Your task to perform on an android device: open app "Roku - Official Remote Control" Image 0: 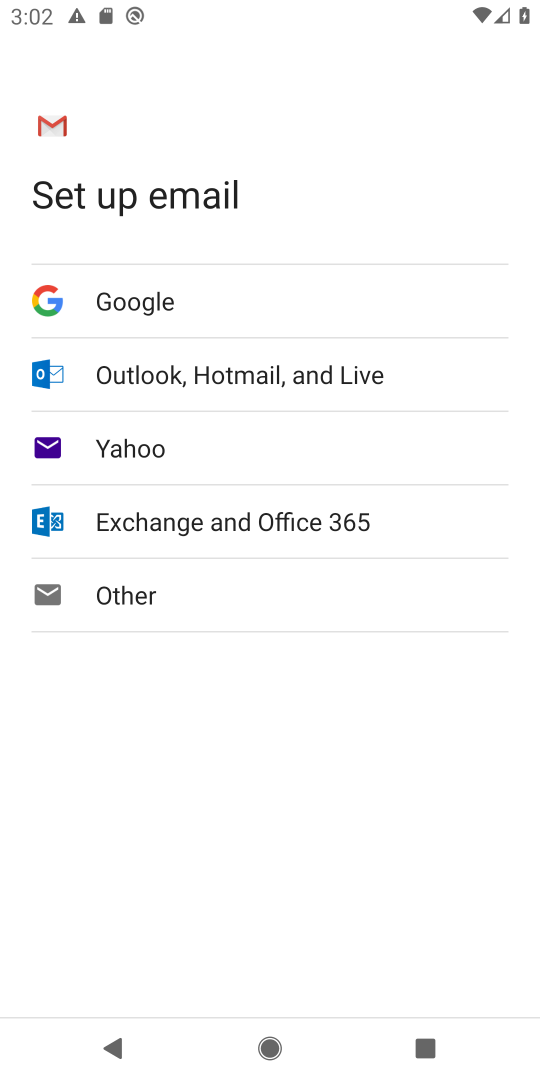
Step 0: press home button
Your task to perform on an android device: open app "Roku - Official Remote Control" Image 1: 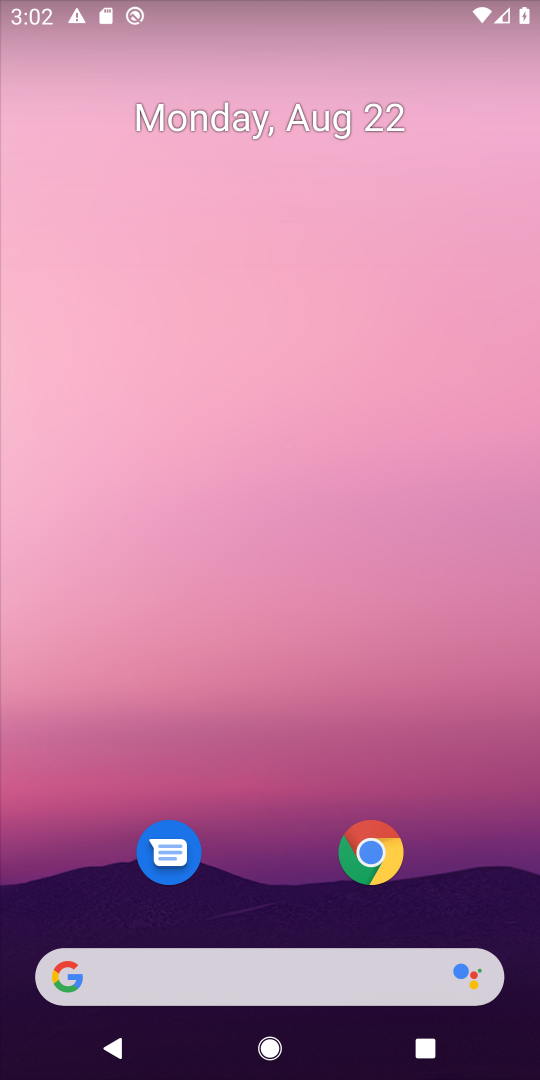
Step 1: drag from (294, 904) to (292, 35)
Your task to perform on an android device: open app "Roku - Official Remote Control" Image 2: 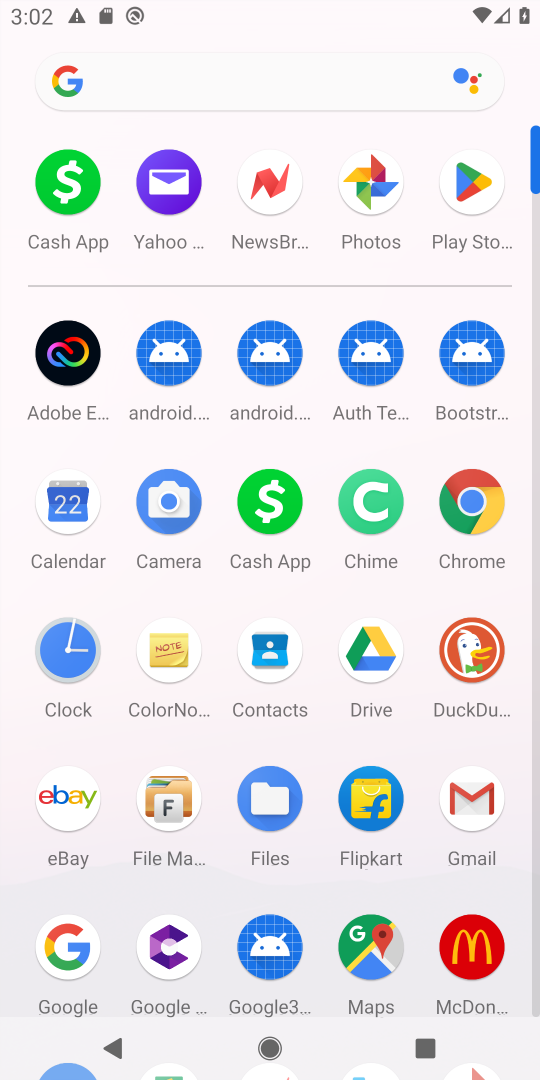
Step 2: click (473, 185)
Your task to perform on an android device: open app "Roku - Official Remote Control" Image 3: 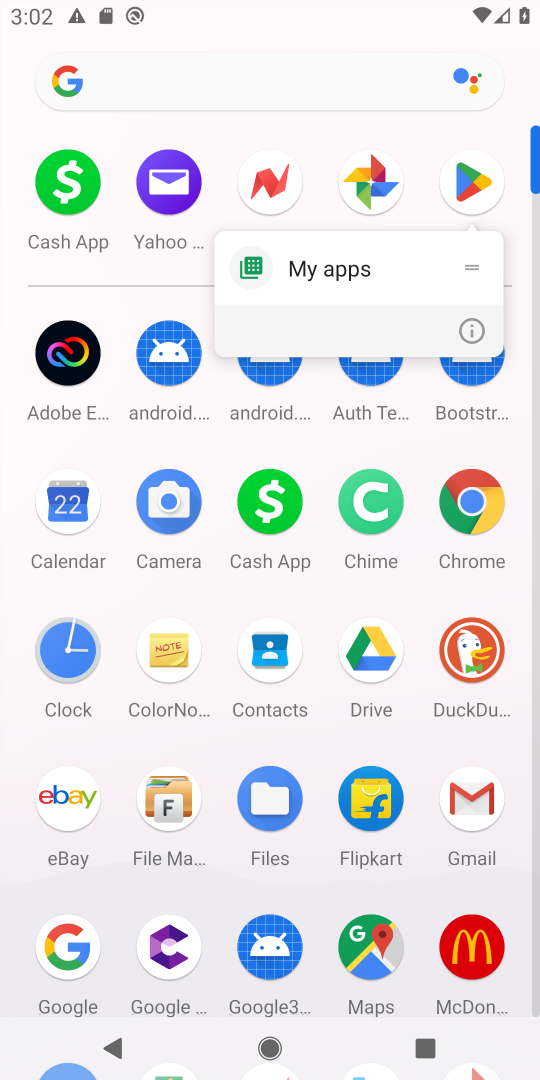
Step 3: click (473, 185)
Your task to perform on an android device: open app "Roku - Official Remote Control" Image 4: 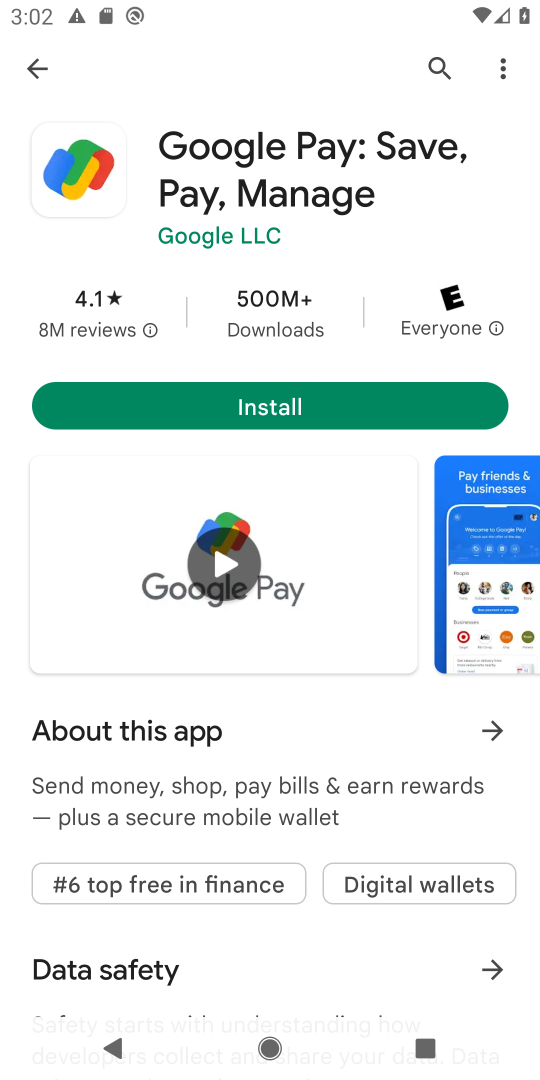
Step 4: click (439, 64)
Your task to perform on an android device: open app "Roku - Official Remote Control" Image 5: 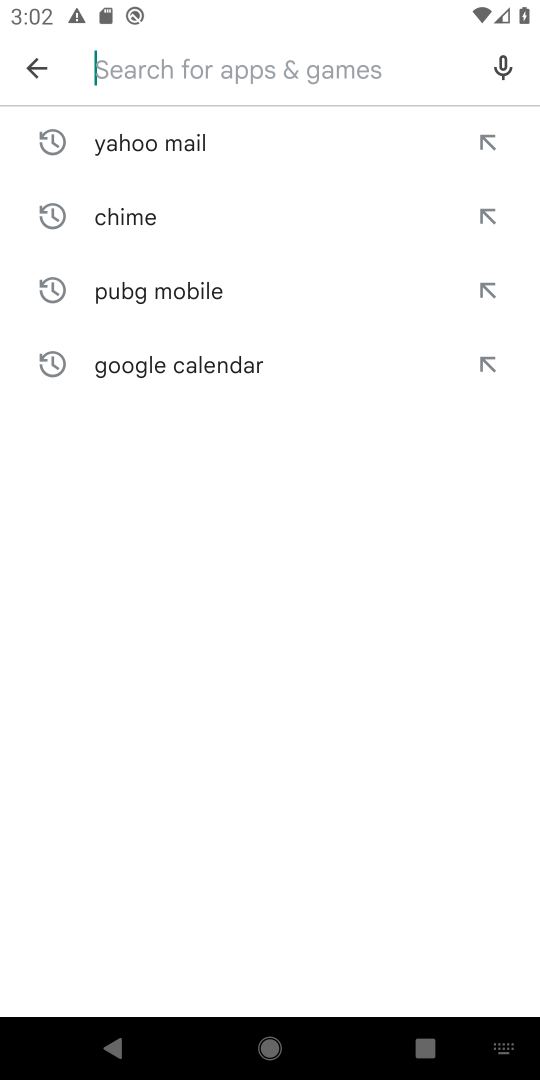
Step 5: type "Roku - Official Remote Control"
Your task to perform on an android device: open app "Roku - Official Remote Control" Image 6: 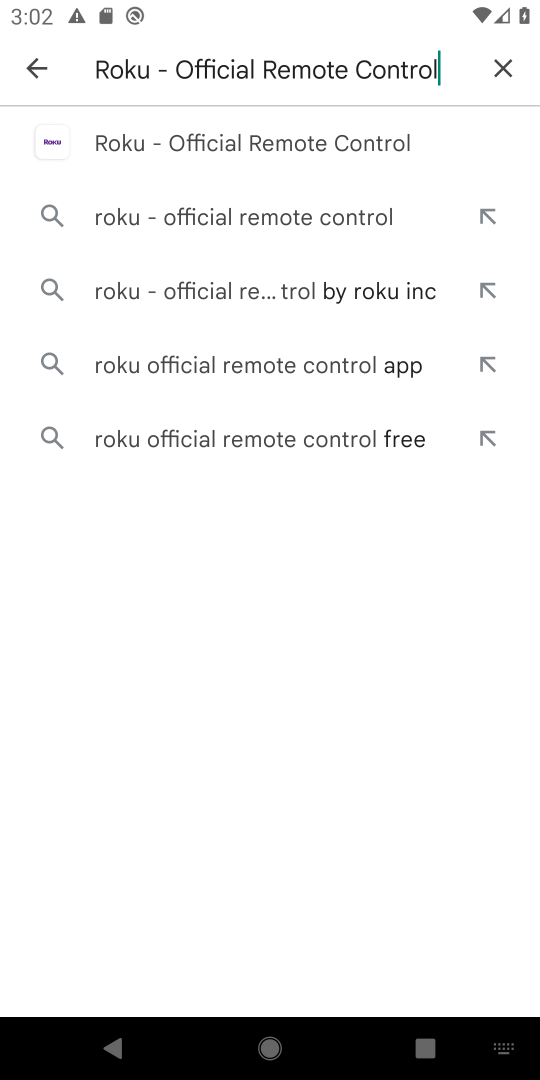
Step 6: click (305, 143)
Your task to perform on an android device: open app "Roku - Official Remote Control" Image 7: 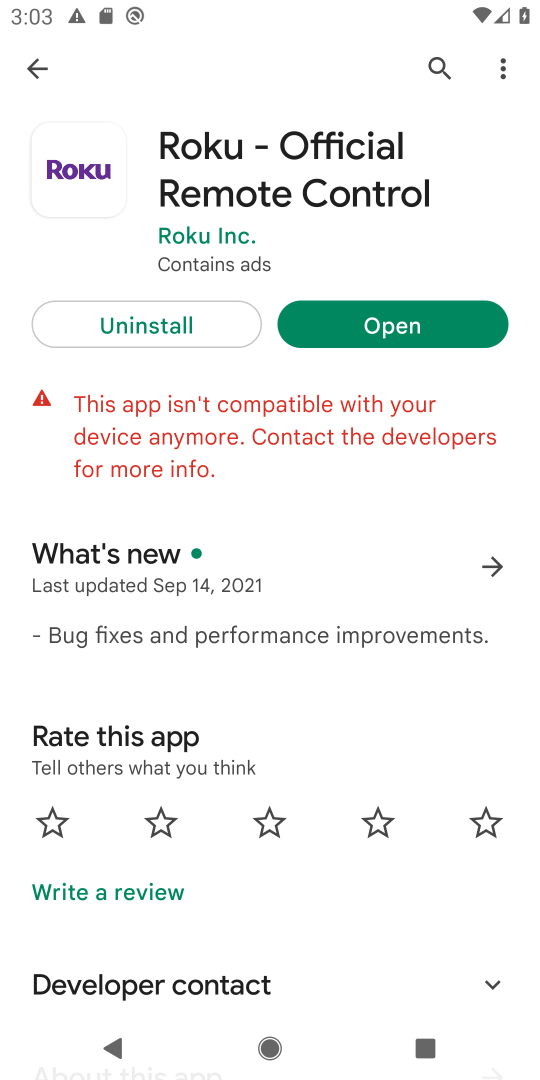
Step 7: click (406, 341)
Your task to perform on an android device: open app "Roku - Official Remote Control" Image 8: 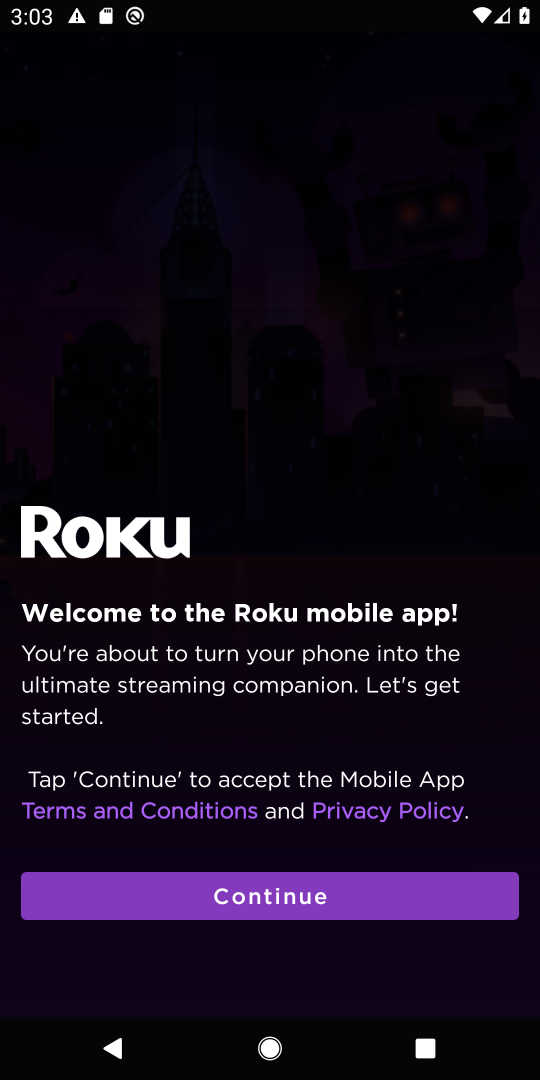
Step 8: task complete